Your task to perform on an android device: manage bookmarks in the chrome app Image 0: 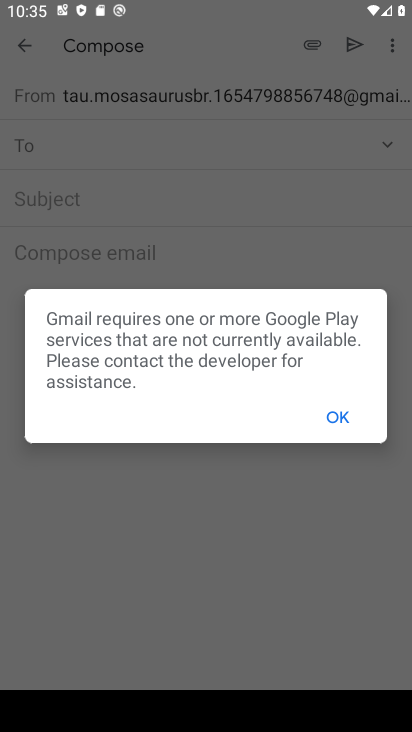
Step 0: press home button
Your task to perform on an android device: manage bookmarks in the chrome app Image 1: 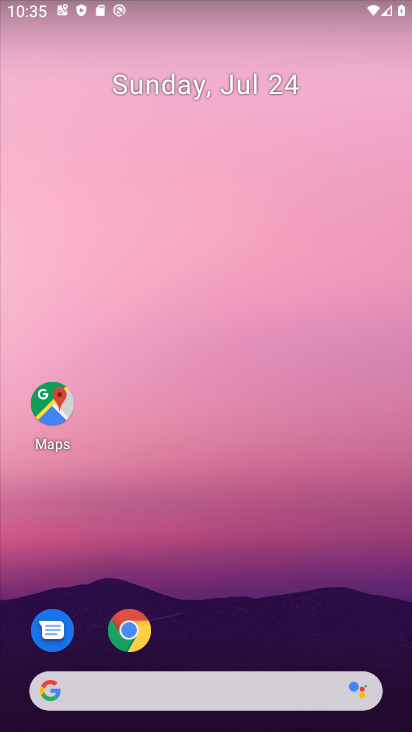
Step 1: click (133, 622)
Your task to perform on an android device: manage bookmarks in the chrome app Image 2: 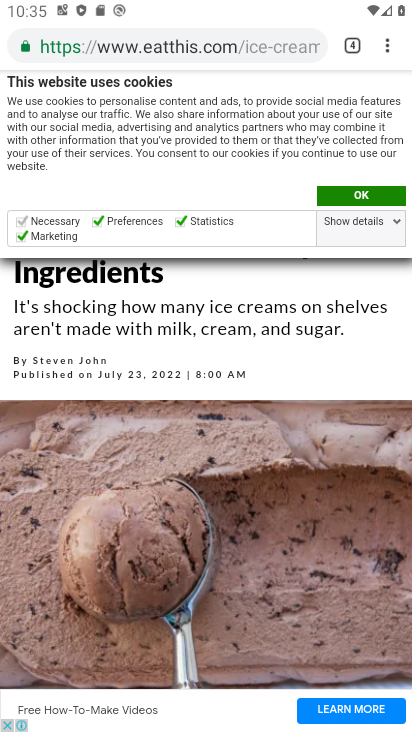
Step 2: click (379, 46)
Your task to perform on an android device: manage bookmarks in the chrome app Image 3: 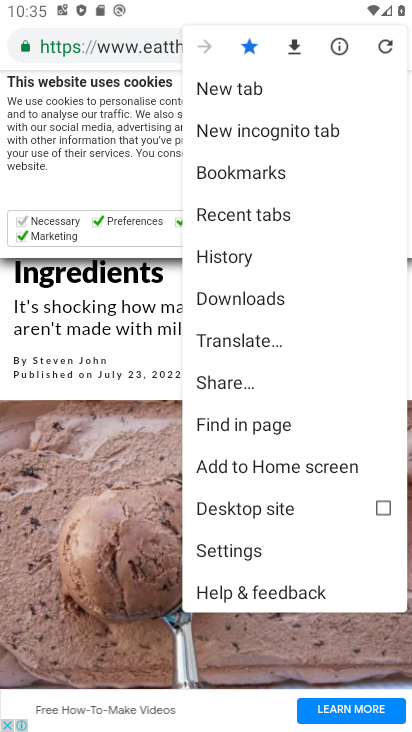
Step 3: click (238, 188)
Your task to perform on an android device: manage bookmarks in the chrome app Image 4: 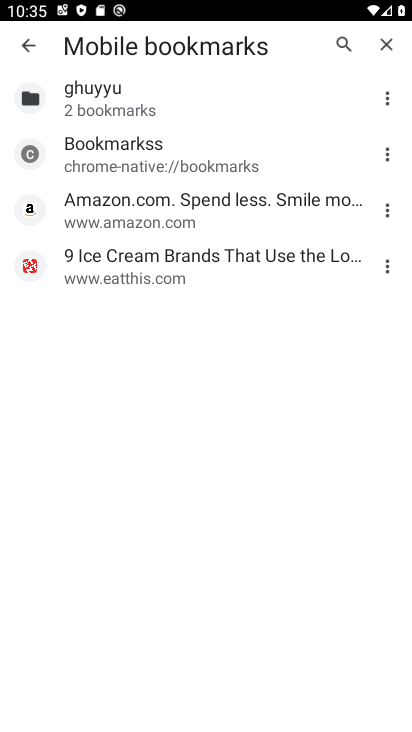
Step 4: click (379, 211)
Your task to perform on an android device: manage bookmarks in the chrome app Image 5: 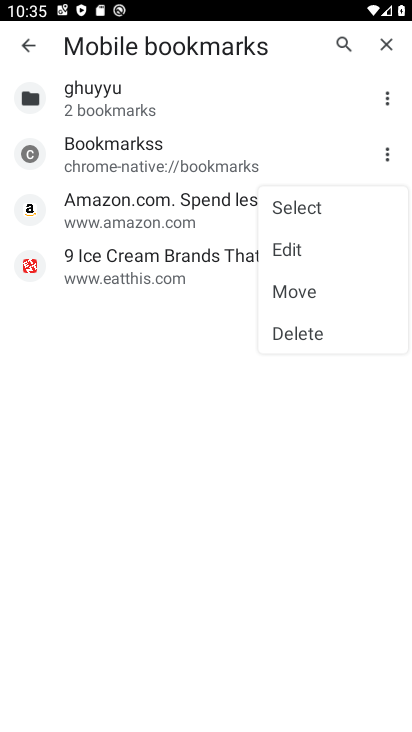
Step 5: click (303, 324)
Your task to perform on an android device: manage bookmarks in the chrome app Image 6: 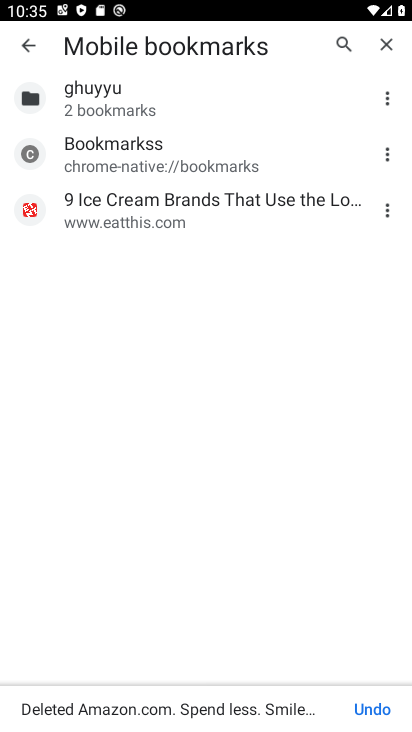
Step 6: task complete